Your task to perform on an android device: Open Google Maps Image 0: 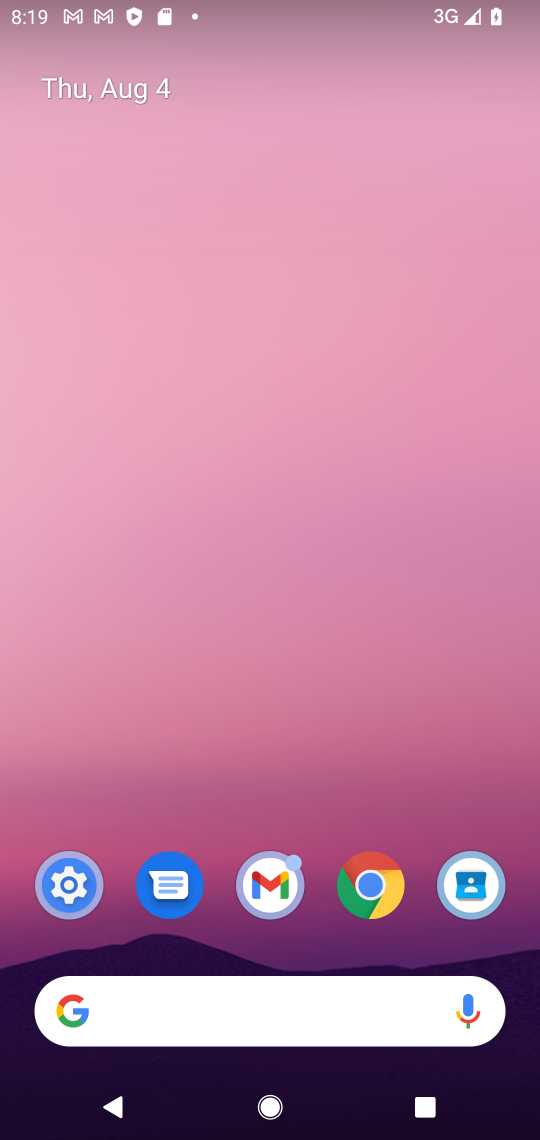
Step 0: press home button
Your task to perform on an android device: Open Google Maps Image 1: 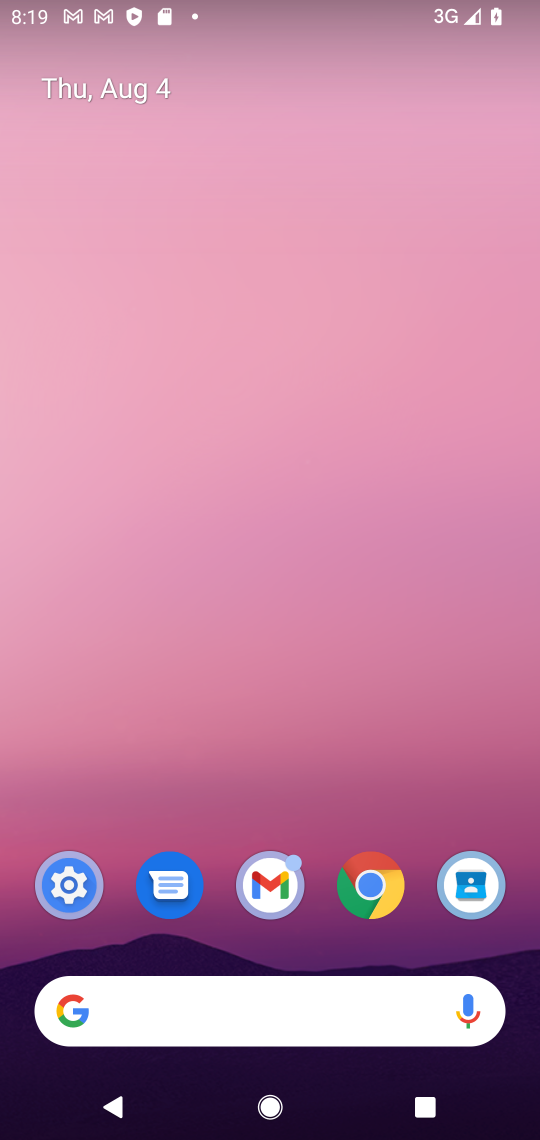
Step 1: drag from (335, 790) to (285, 300)
Your task to perform on an android device: Open Google Maps Image 2: 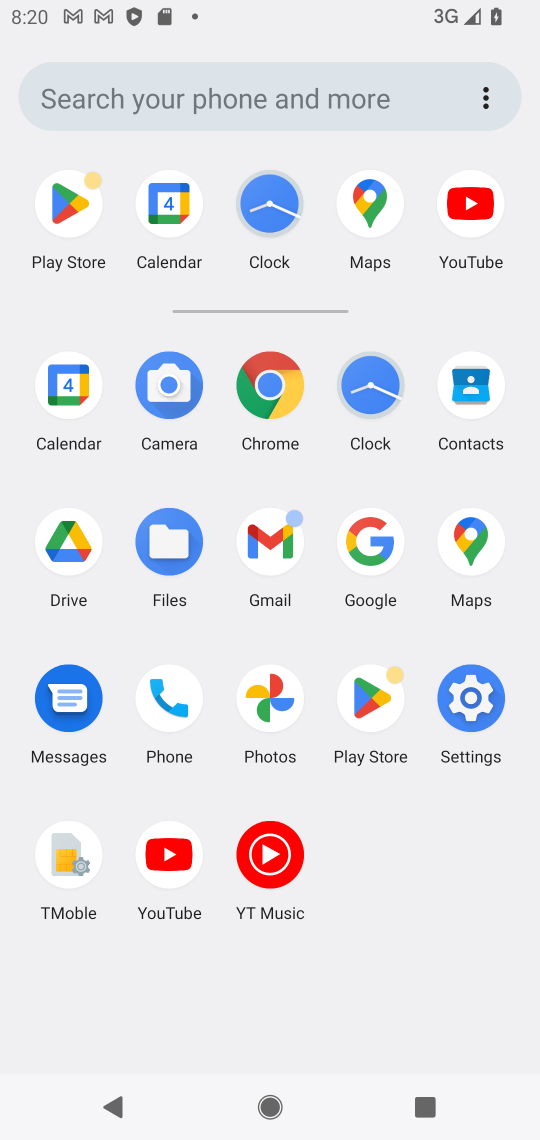
Step 2: click (370, 197)
Your task to perform on an android device: Open Google Maps Image 3: 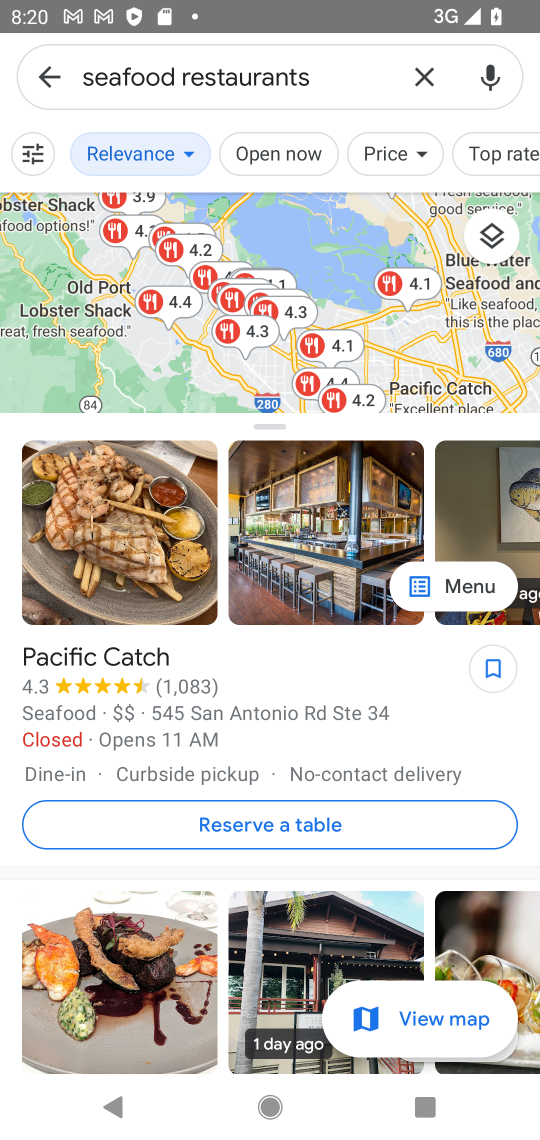
Step 3: task complete